Your task to perform on an android device: Go to calendar. Show me events next week Image 0: 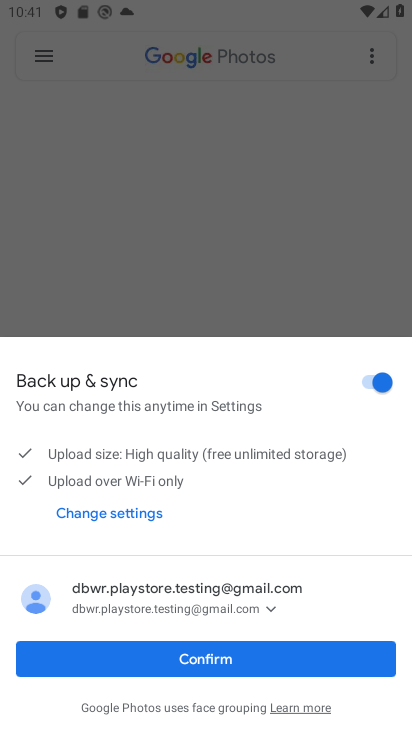
Step 0: press home button
Your task to perform on an android device: Go to calendar. Show me events next week Image 1: 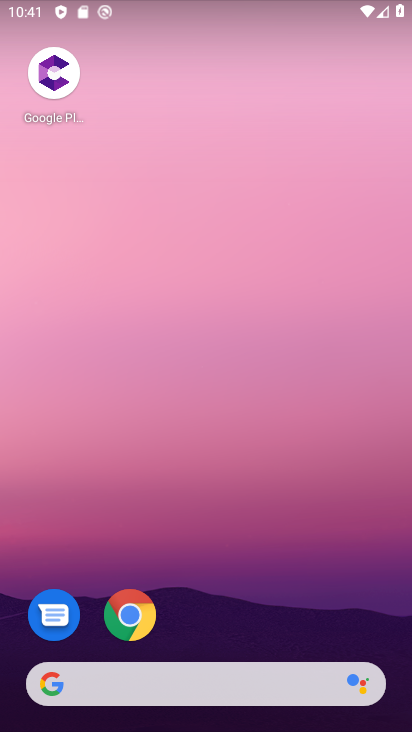
Step 1: drag from (182, 667) to (159, 103)
Your task to perform on an android device: Go to calendar. Show me events next week Image 2: 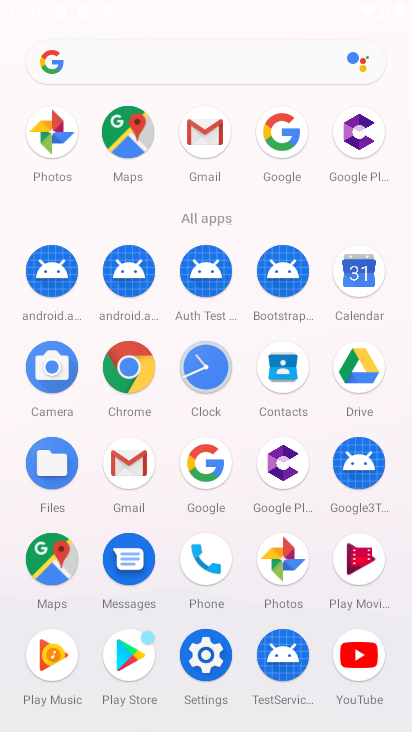
Step 2: click (352, 287)
Your task to perform on an android device: Go to calendar. Show me events next week Image 3: 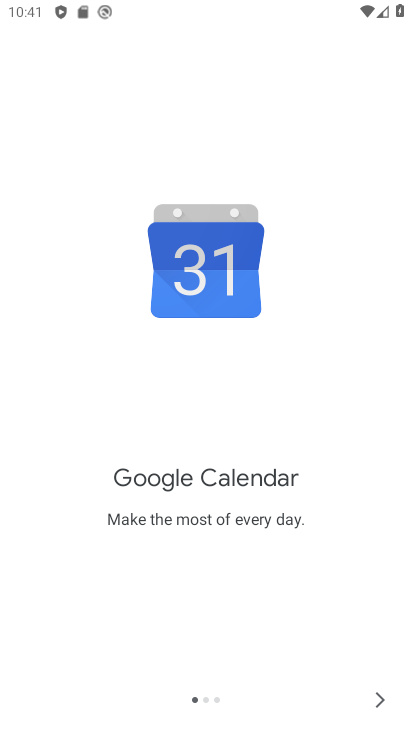
Step 3: click (370, 709)
Your task to perform on an android device: Go to calendar. Show me events next week Image 4: 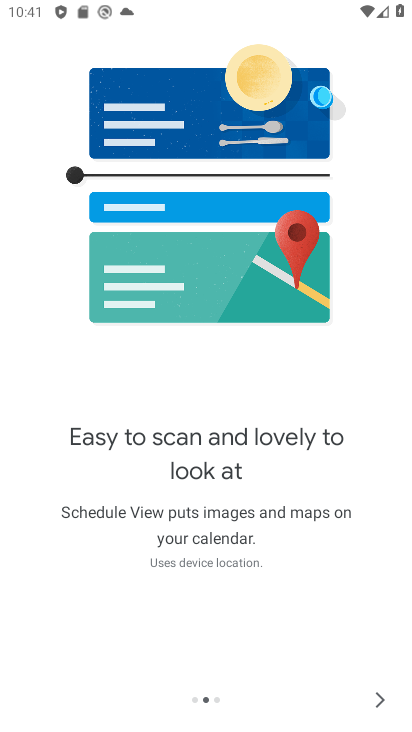
Step 4: click (370, 709)
Your task to perform on an android device: Go to calendar. Show me events next week Image 5: 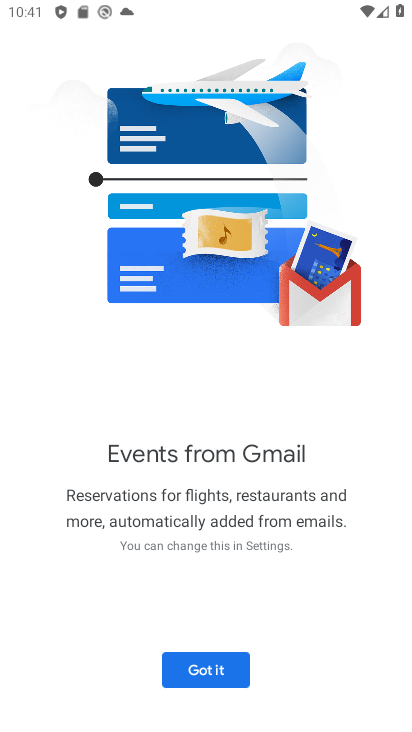
Step 5: click (219, 678)
Your task to perform on an android device: Go to calendar. Show me events next week Image 6: 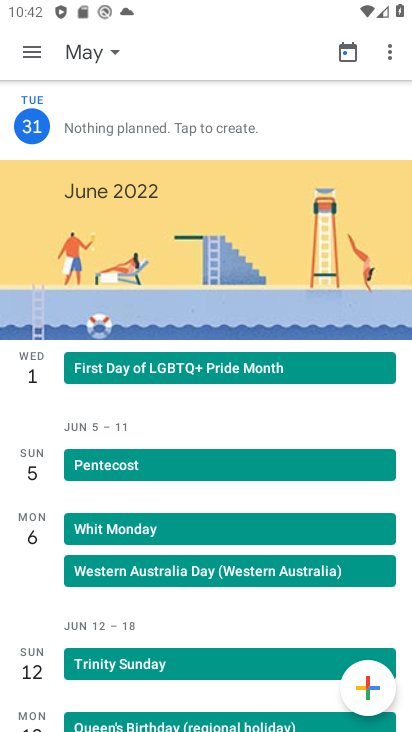
Step 6: click (34, 58)
Your task to perform on an android device: Go to calendar. Show me events next week Image 7: 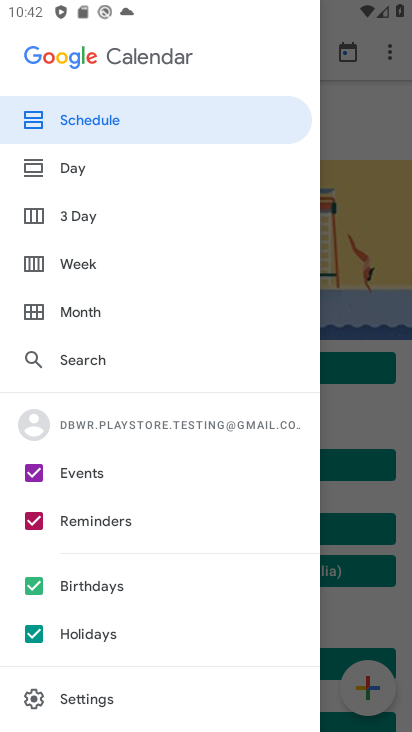
Step 7: click (77, 268)
Your task to perform on an android device: Go to calendar. Show me events next week Image 8: 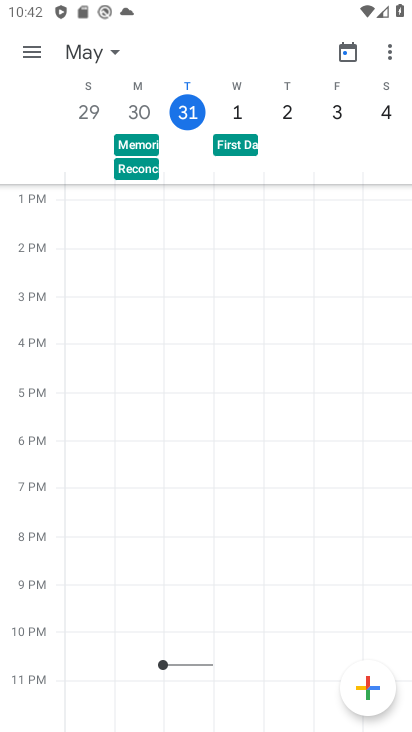
Step 8: task complete